Your task to perform on an android device: Go to calendar. Show me events next week Image 0: 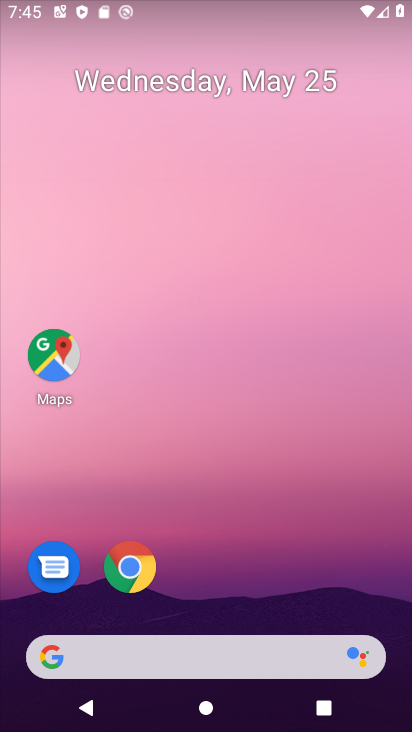
Step 0: drag from (296, 610) to (283, 134)
Your task to perform on an android device: Go to calendar. Show me events next week Image 1: 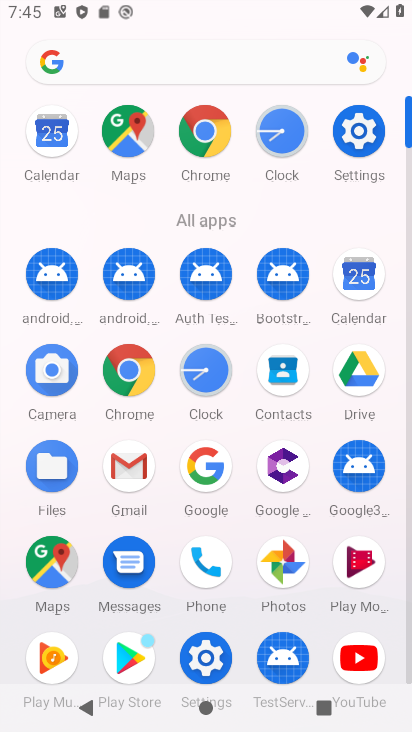
Step 1: click (357, 275)
Your task to perform on an android device: Go to calendar. Show me events next week Image 2: 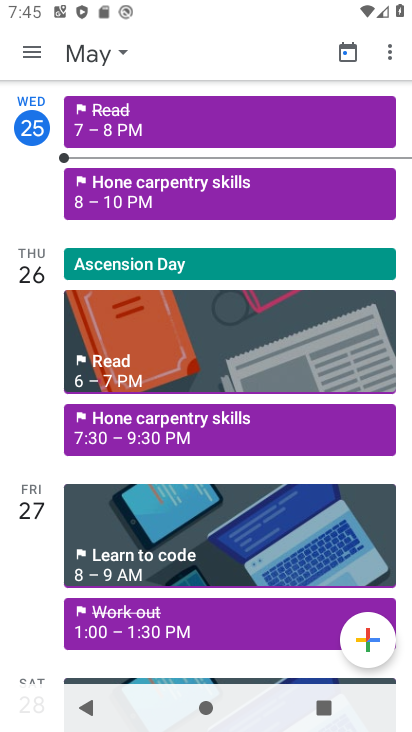
Step 2: task complete